Your task to perform on an android device: Search for vegetarian restaurants on Maps Image 0: 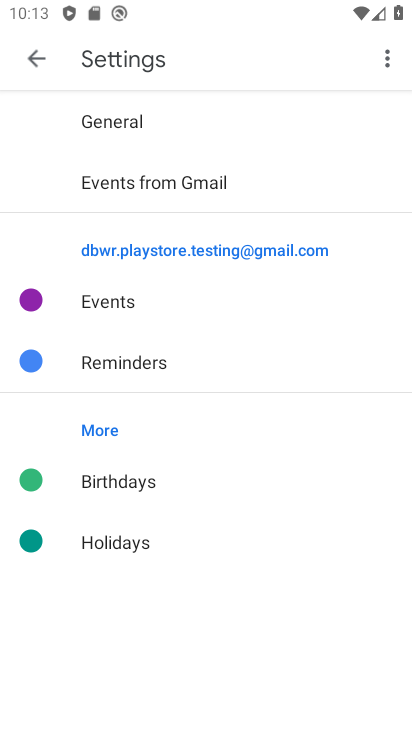
Step 0: press home button
Your task to perform on an android device: Search for vegetarian restaurants on Maps Image 1: 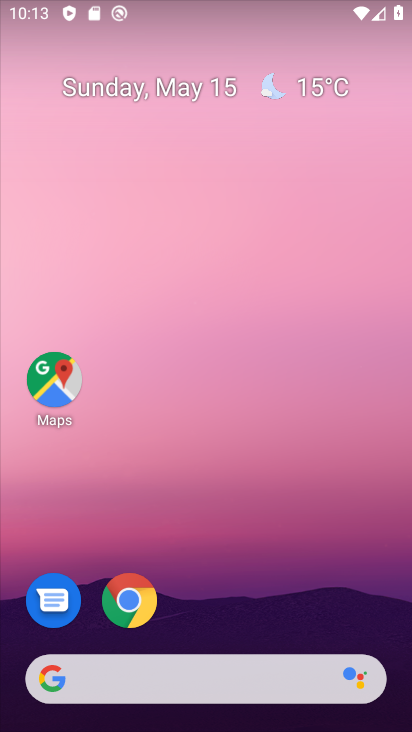
Step 1: drag from (381, 611) to (352, 175)
Your task to perform on an android device: Search for vegetarian restaurants on Maps Image 2: 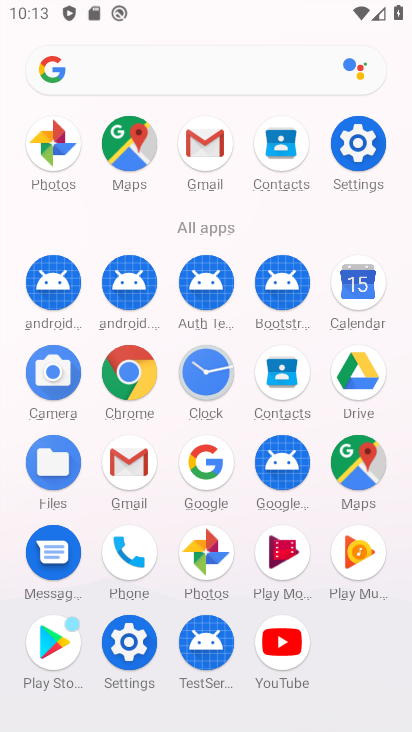
Step 2: click (350, 475)
Your task to perform on an android device: Search for vegetarian restaurants on Maps Image 3: 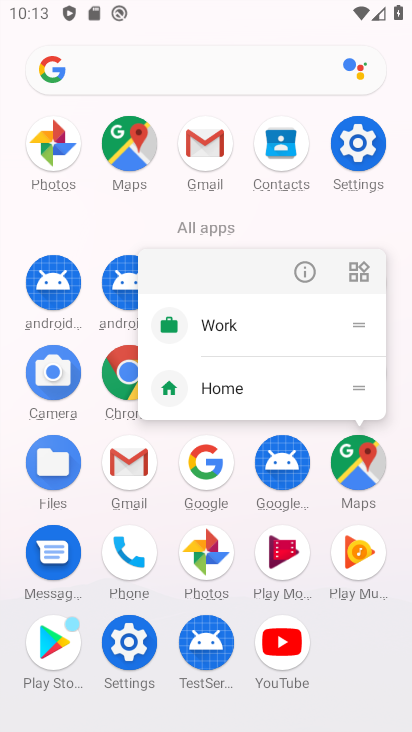
Step 3: click (349, 476)
Your task to perform on an android device: Search for vegetarian restaurants on Maps Image 4: 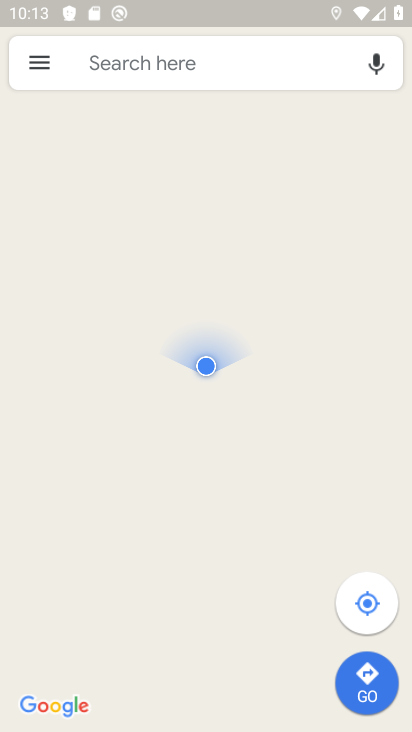
Step 4: click (224, 62)
Your task to perform on an android device: Search for vegetarian restaurants on Maps Image 5: 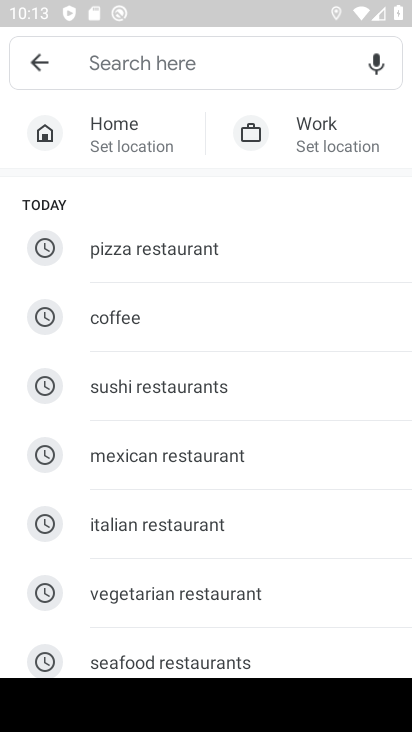
Step 5: type "vegetrain restaurants"
Your task to perform on an android device: Search for vegetarian restaurants on Maps Image 6: 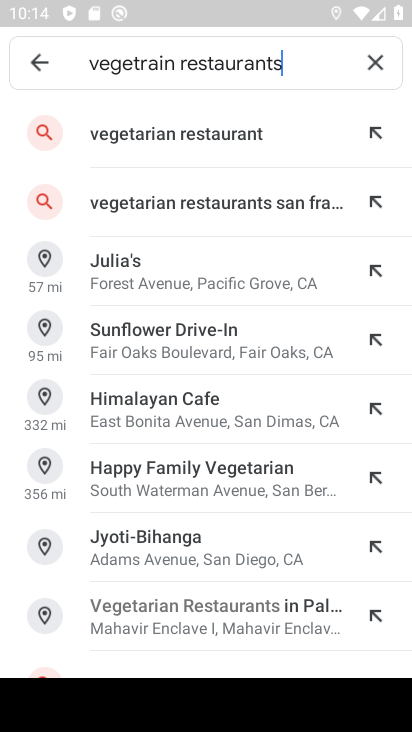
Step 6: click (202, 129)
Your task to perform on an android device: Search for vegetarian restaurants on Maps Image 7: 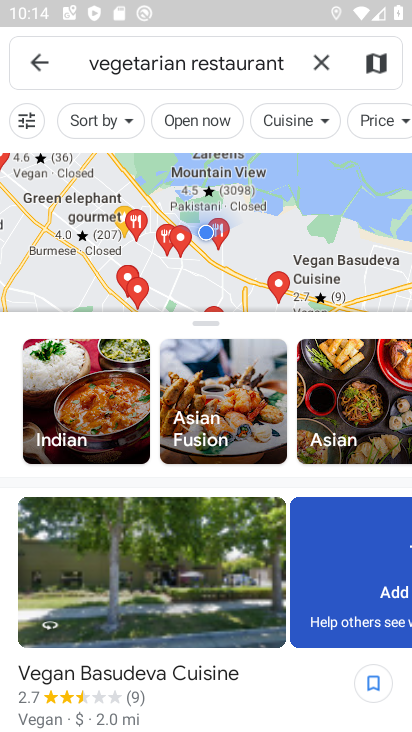
Step 7: task complete